Your task to perform on an android device: check storage Image 0: 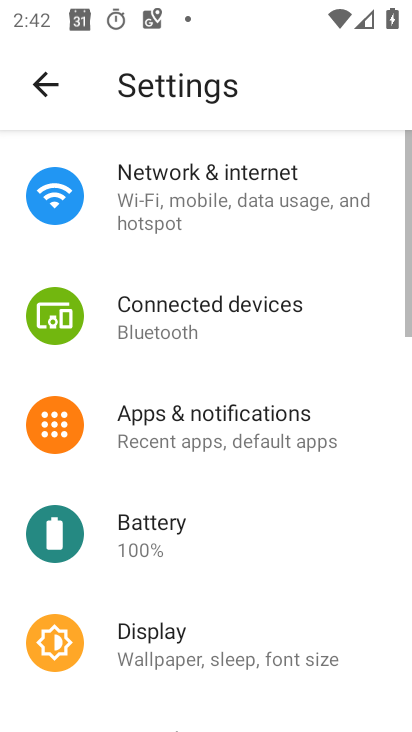
Step 0: drag from (223, 611) to (243, 124)
Your task to perform on an android device: check storage Image 1: 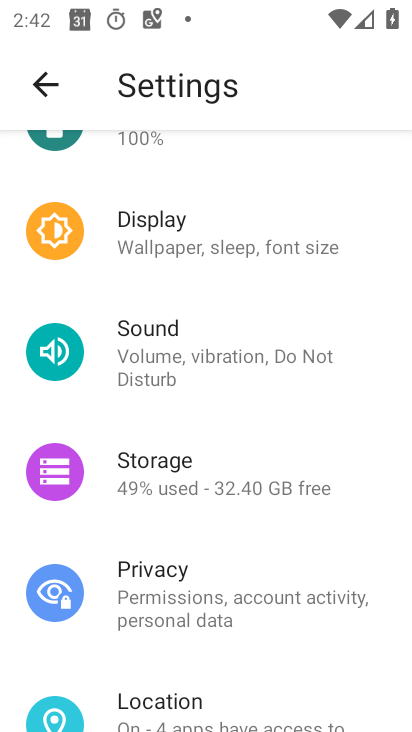
Step 1: click (205, 480)
Your task to perform on an android device: check storage Image 2: 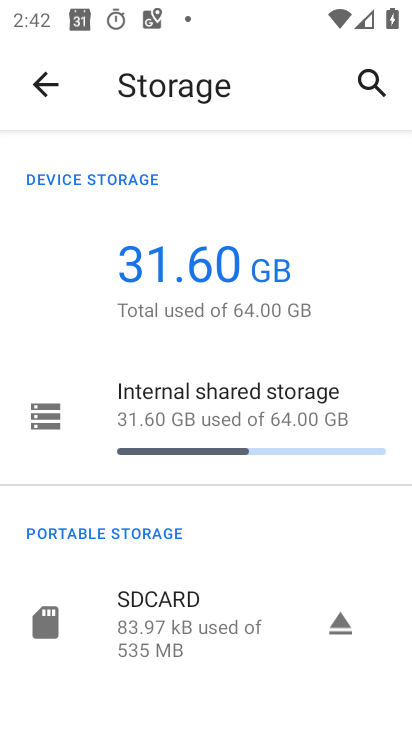
Step 2: task complete